Your task to perform on an android device: Open Android settings Image 0: 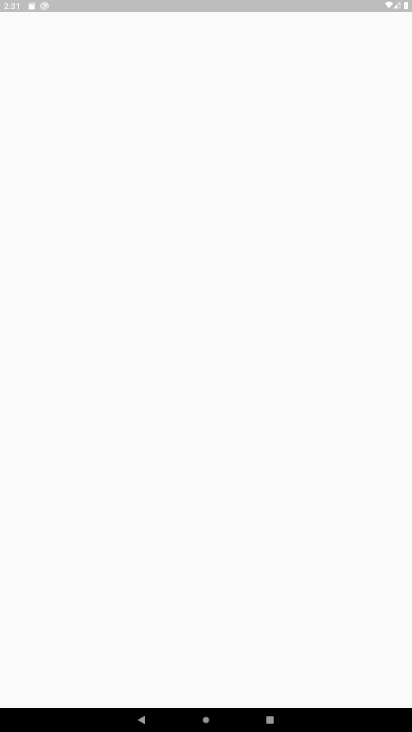
Step 0: press home button
Your task to perform on an android device: Open Android settings Image 1: 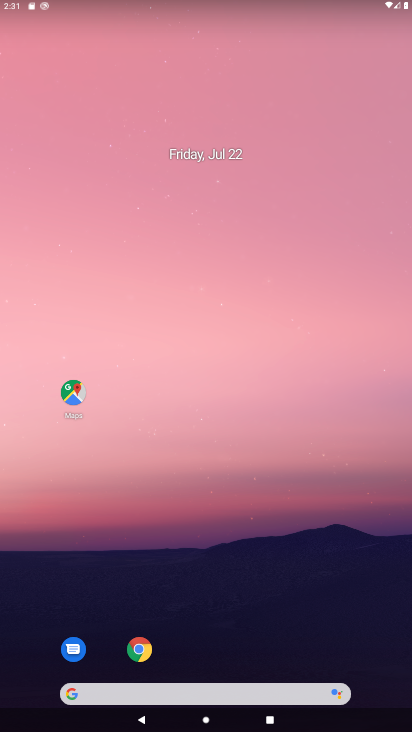
Step 1: drag from (234, 706) to (257, 152)
Your task to perform on an android device: Open Android settings Image 2: 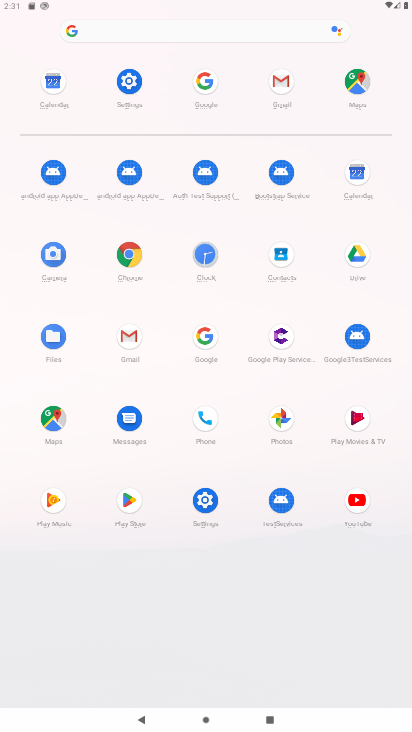
Step 2: click (134, 86)
Your task to perform on an android device: Open Android settings Image 3: 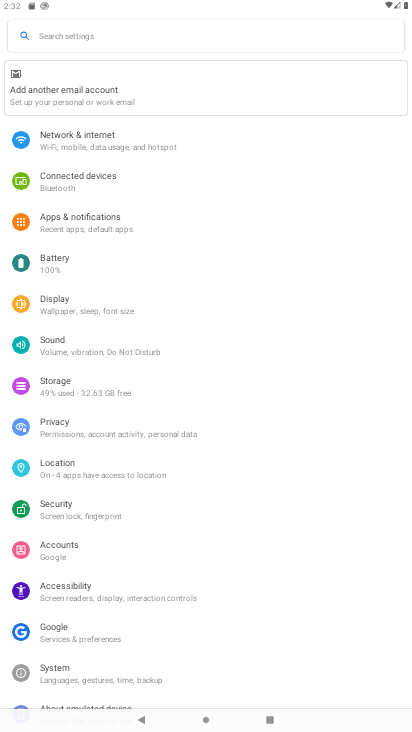
Step 3: task complete